Your task to perform on an android device: delete the emails in spam in the gmail app Image 0: 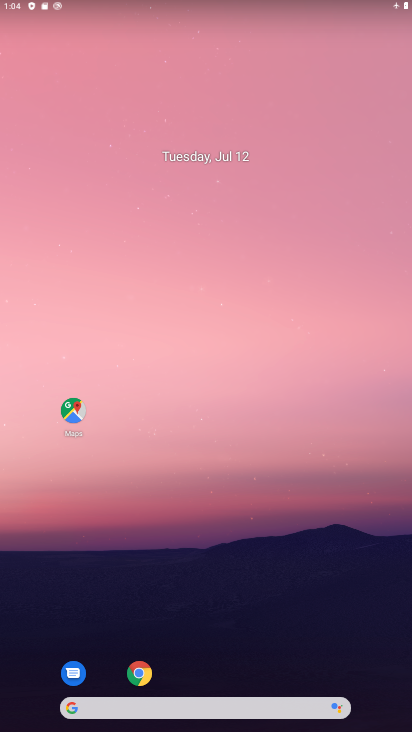
Step 0: drag from (186, 581) to (203, 89)
Your task to perform on an android device: delete the emails in spam in the gmail app Image 1: 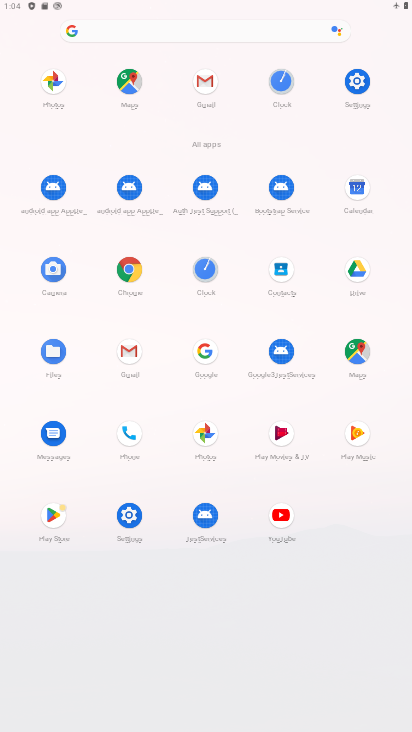
Step 1: click (205, 76)
Your task to perform on an android device: delete the emails in spam in the gmail app Image 2: 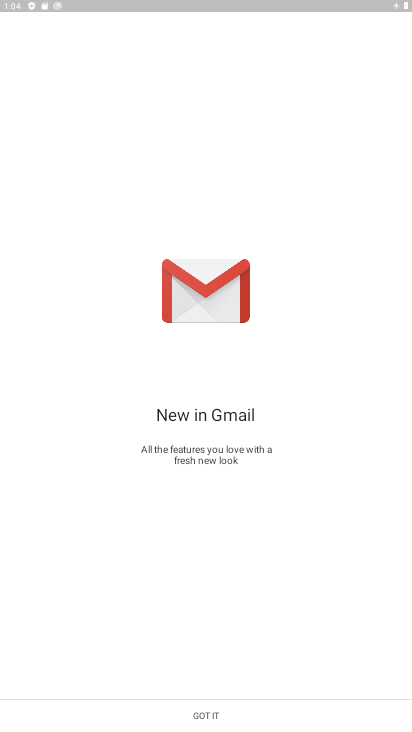
Step 2: click (229, 704)
Your task to perform on an android device: delete the emails in spam in the gmail app Image 3: 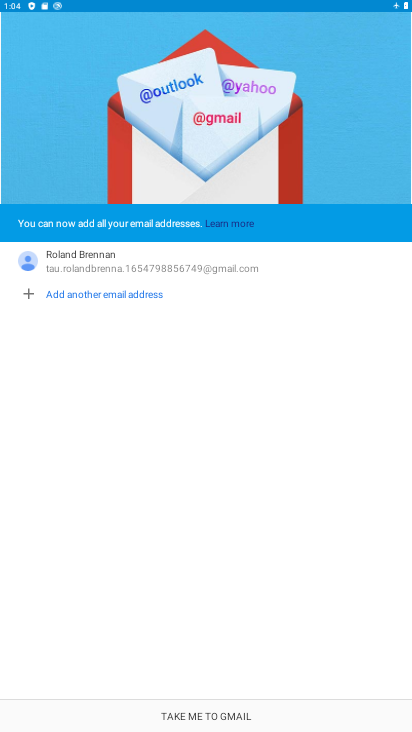
Step 3: click (135, 261)
Your task to perform on an android device: delete the emails in spam in the gmail app Image 4: 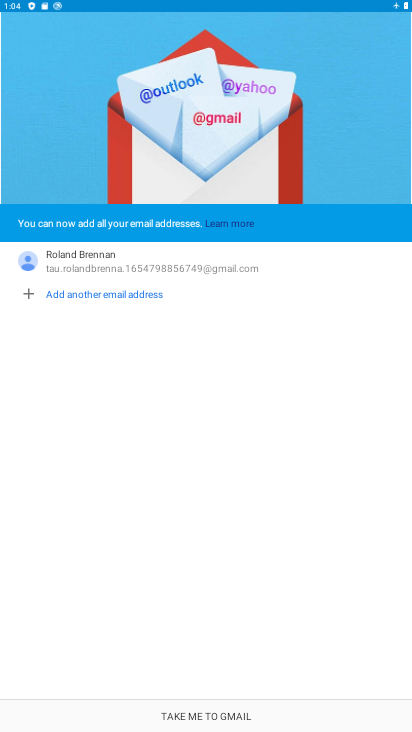
Step 4: click (194, 717)
Your task to perform on an android device: delete the emails in spam in the gmail app Image 5: 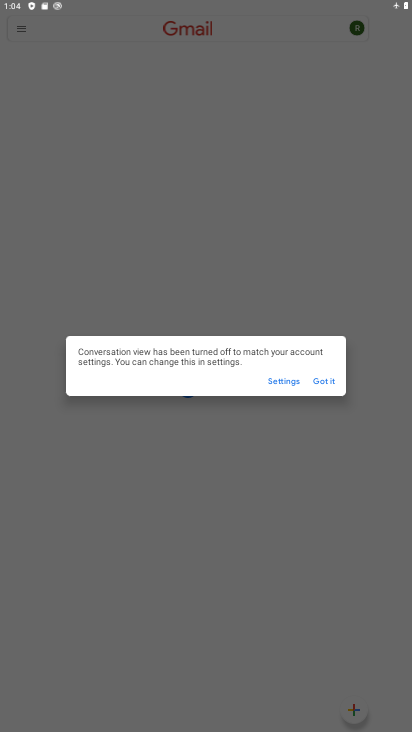
Step 5: click (325, 371)
Your task to perform on an android device: delete the emails in spam in the gmail app Image 6: 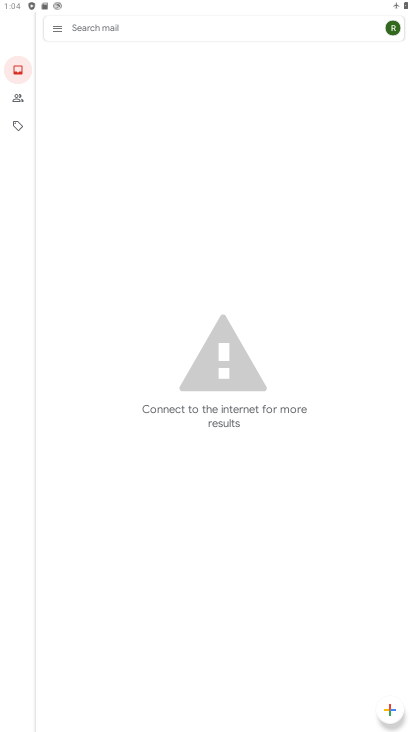
Step 6: click (55, 29)
Your task to perform on an android device: delete the emails in spam in the gmail app Image 7: 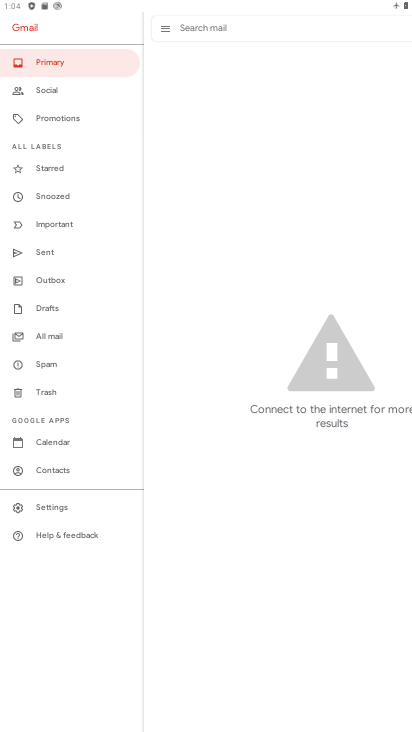
Step 7: click (58, 355)
Your task to perform on an android device: delete the emails in spam in the gmail app Image 8: 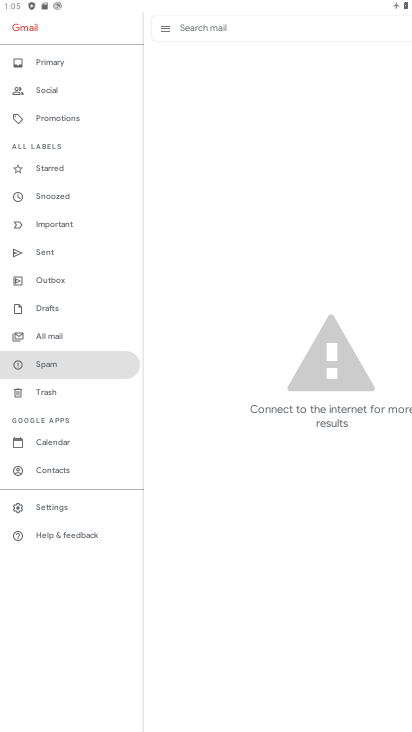
Step 8: task complete